Your task to perform on an android device: Open calendar and show me the first week of next month Image 0: 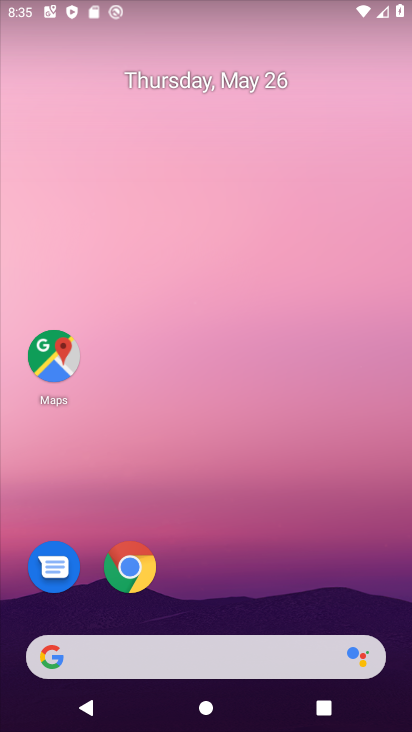
Step 0: press home button
Your task to perform on an android device: Open calendar and show me the first week of next month Image 1: 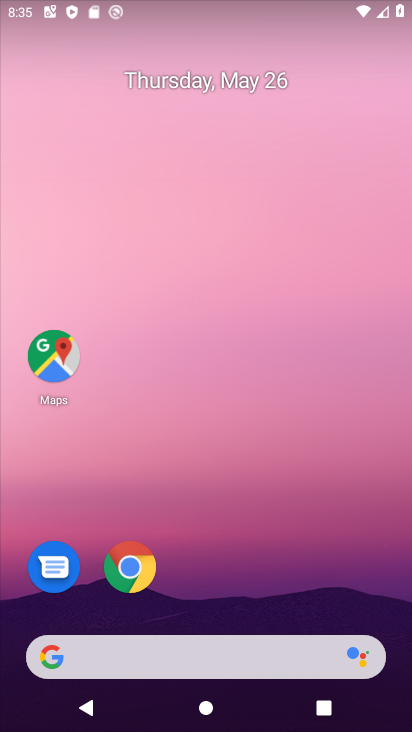
Step 1: drag from (160, 660) to (230, 222)
Your task to perform on an android device: Open calendar and show me the first week of next month Image 2: 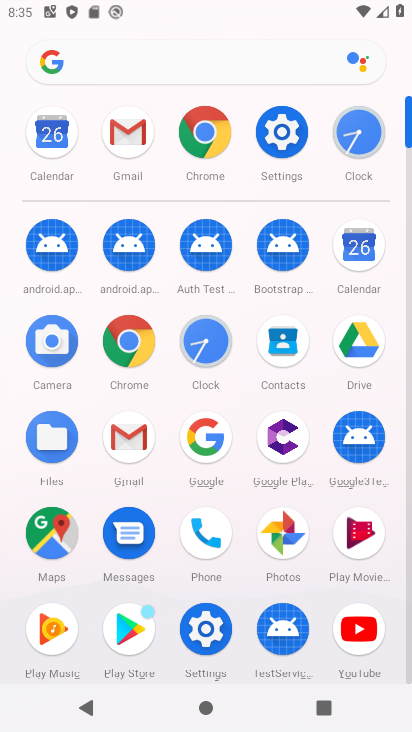
Step 2: click (359, 250)
Your task to perform on an android device: Open calendar and show me the first week of next month Image 3: 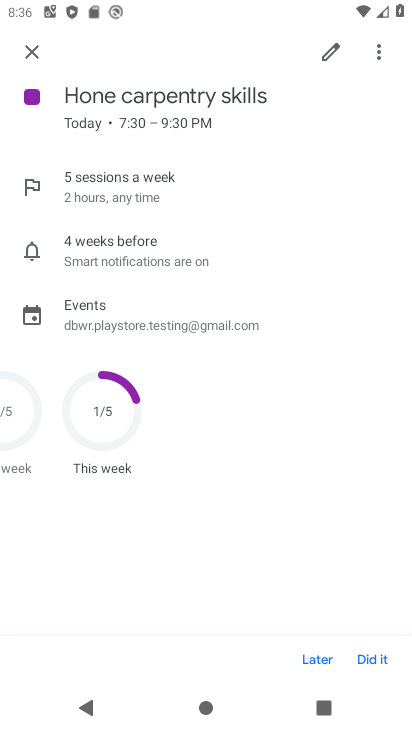
Step 3: click (36, 43)
Your task to perform on an android device: Open calendar and show me the first week of next month Image 4: 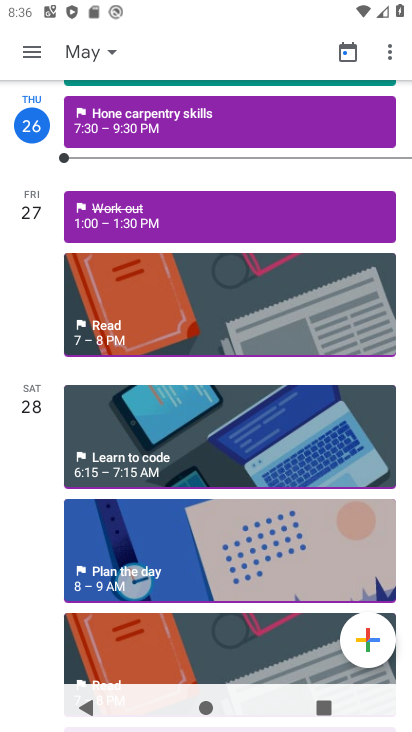
Step 4: click (91, 49)
Your task to perform on an android device: Open calendar and show me the first week of next month Image 5: 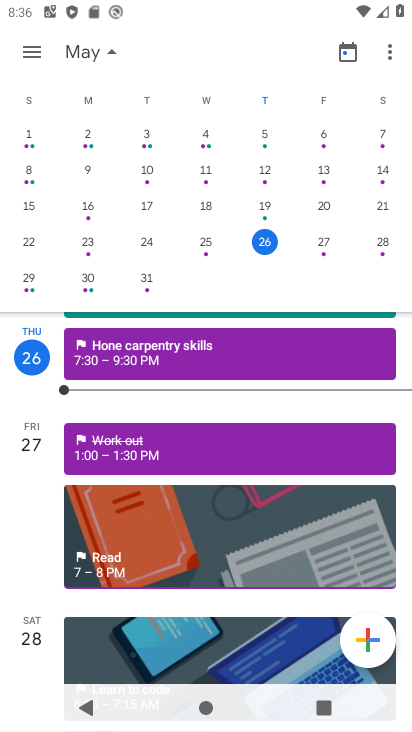
Step 5: drag from (358, 177) to (6, 183)
Your task to perform on an android device: Open calendar and show me the first week of next month Image 6: 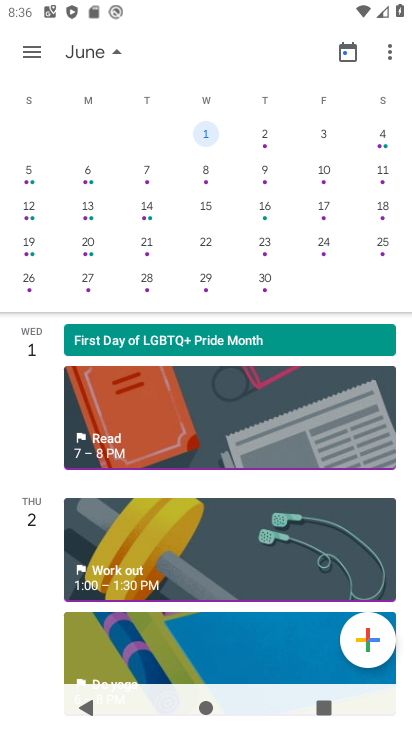
Step 6: click (211, 132)
Your task to perform on an android device: Open calendar and show me the first week of next month Image 7: 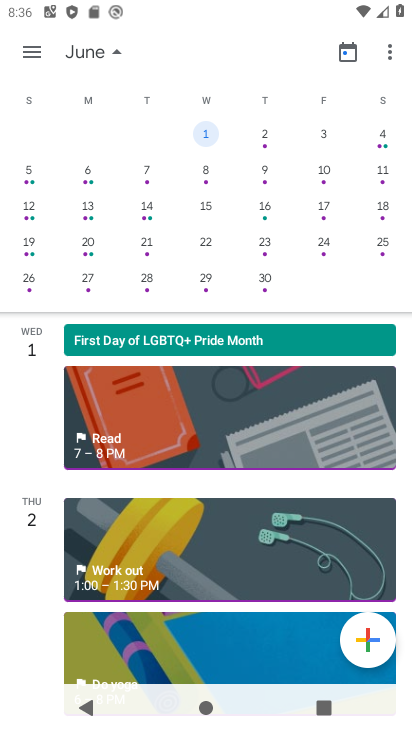
Step 7: click (202, 129)
Your task to perform on an android device: Open calendar and show me the first week of next month Image 8: 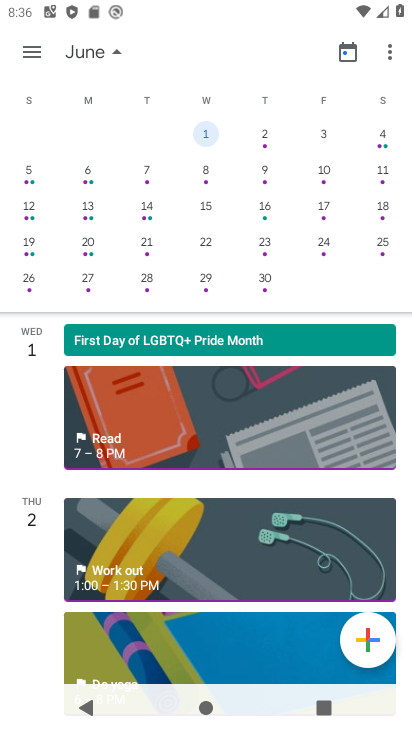
Step 8: click (37, 53)
Your task to perform on an android device: Open calendar and show me the first week of next month Image 9: 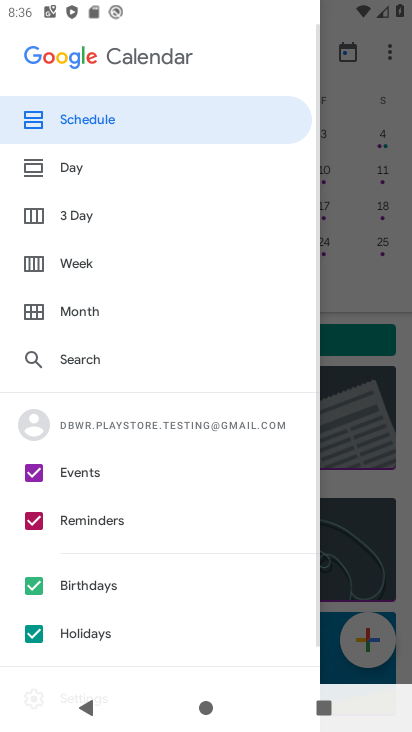
Step 9: click (85, 263)
Your task to perform on an android device: Open calendar and show me the first week of next month Image 10: 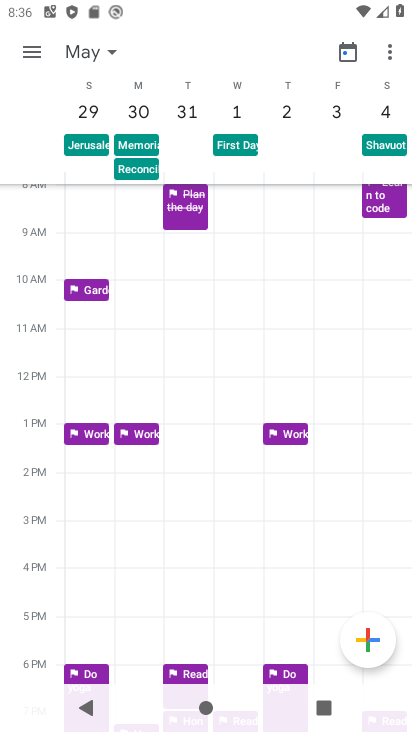
Step 10: task complete